Your task to perform on an android device: Open Reddit.com Image 0: 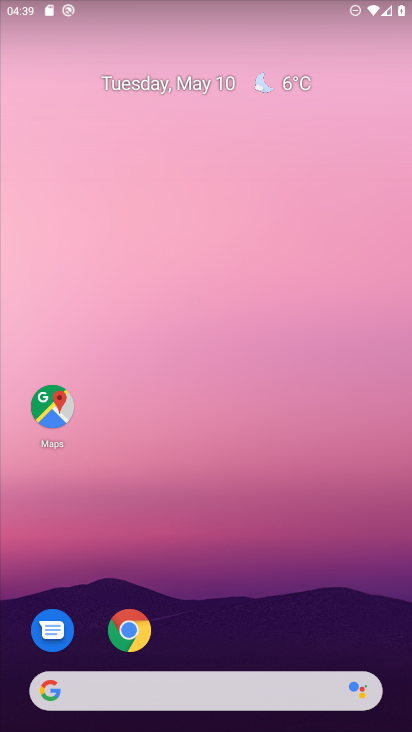
Step 0: drag from (189, 665) to (225, 258)
Your task to perform on an android device: Open Reddit.com Image 1: 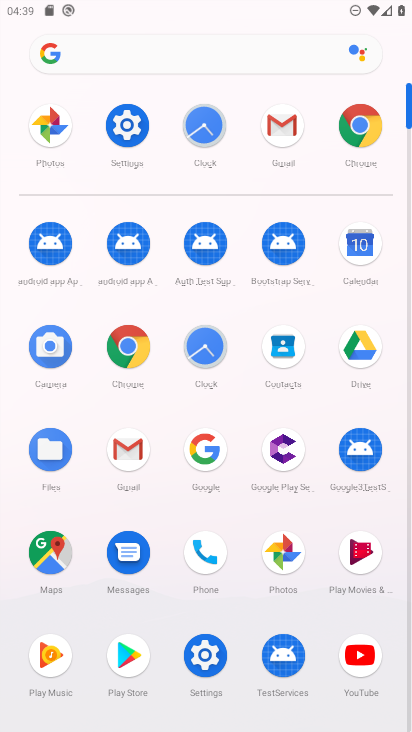
Step 1: click (356, 122)
Your task to perform on an android device: Open Reddit.com Image 2: 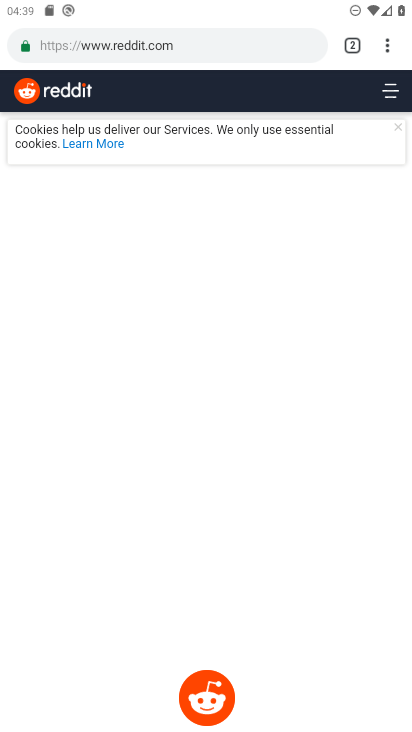
Step 2: task complete